Your task to perform on an android device: set an alarm Image 0: 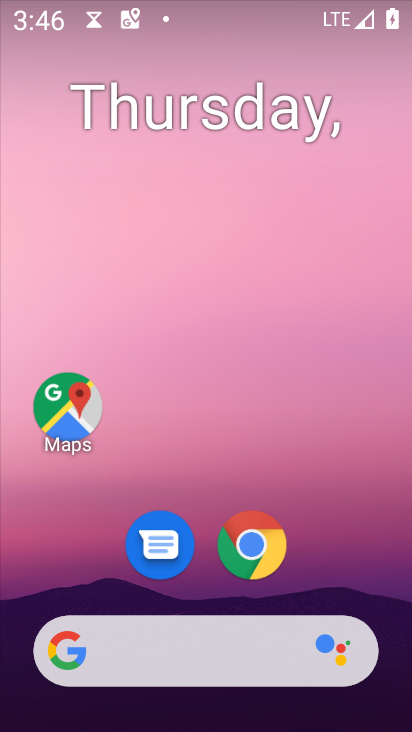
Step 0: drag from (345, 557) to (350, 0)
Your task to perform on an android device: set an alarm Image 1: 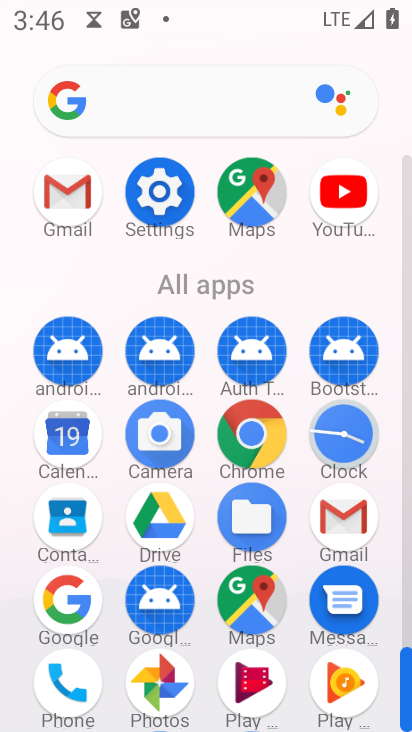
Step 1: click (352, 441)
Your task to perform on an android device: set an alarm Image 2: 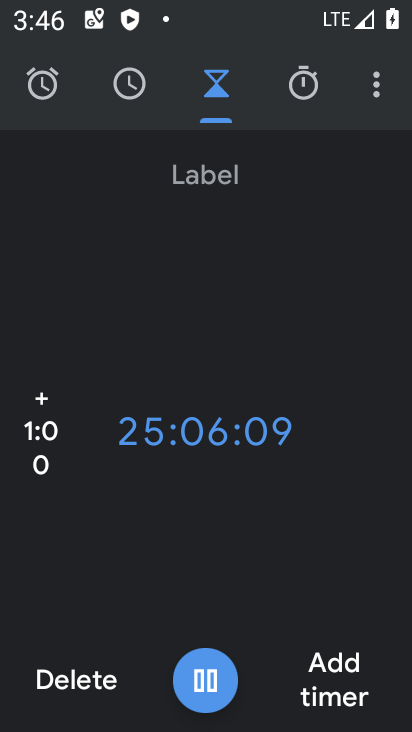
Step 2: click (65, 88)
Your task to perform on an android device: set an alarm Image 3: 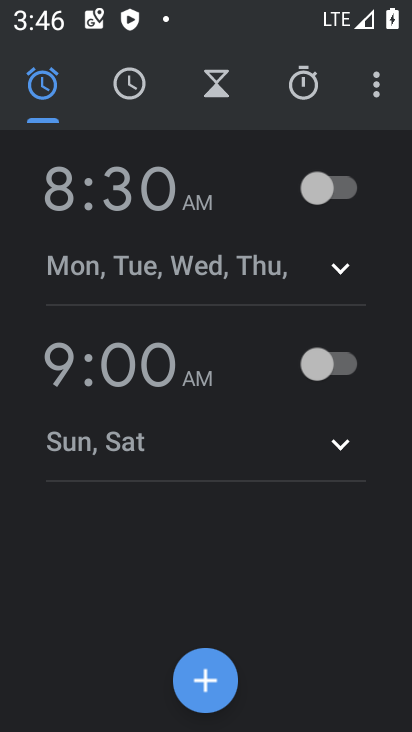
Step 3: click (328, 361)
Your task to perform on an android device: set an alarm Image 4: 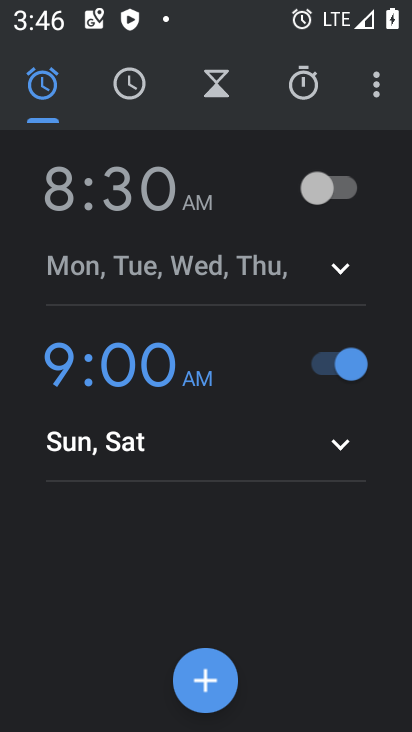
Step 4: task complete